Your task to perform on an android device: check google app version Image 0: 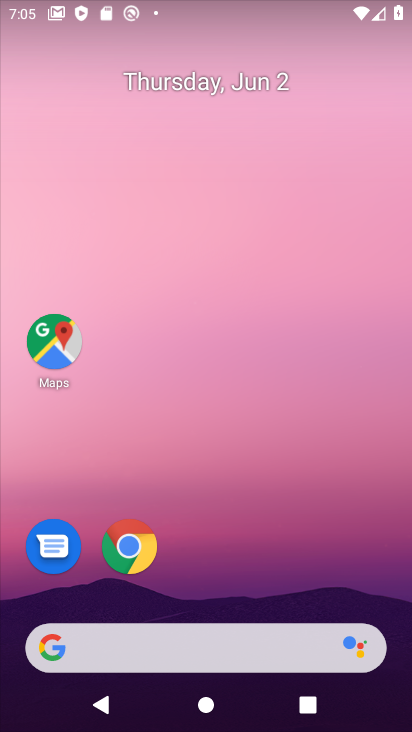
Step 0: click (127, 556)
Your task to perform on an android device: check google app version Image 1: 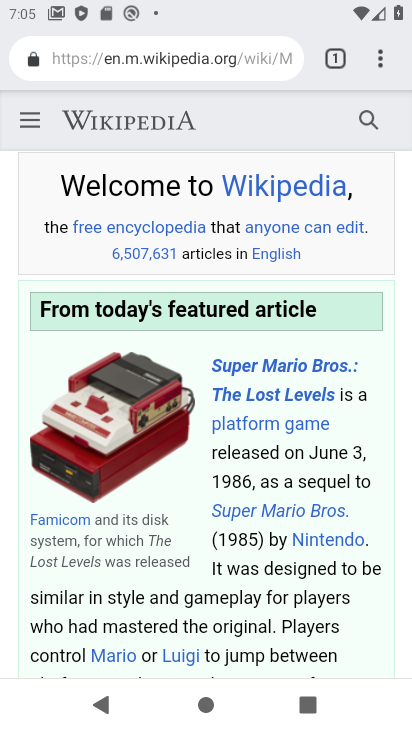
Step 1: click (387, 63)
Your task to perform on an android device: check google app version Image 2: 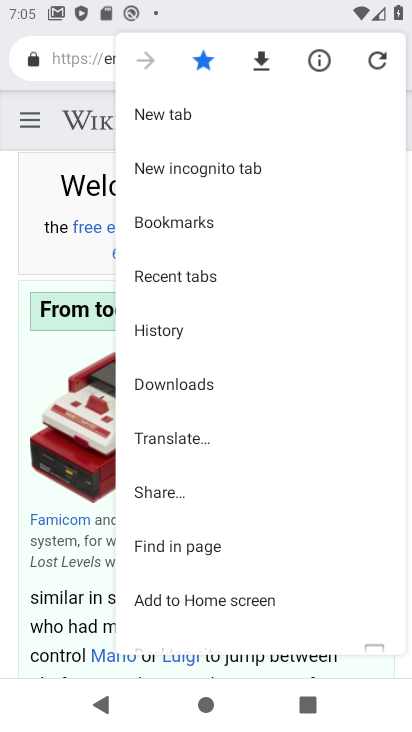
Step 2: drag from (222, 568) to (271, 233)
Your task to perform on an android device: check google app version Image 3: 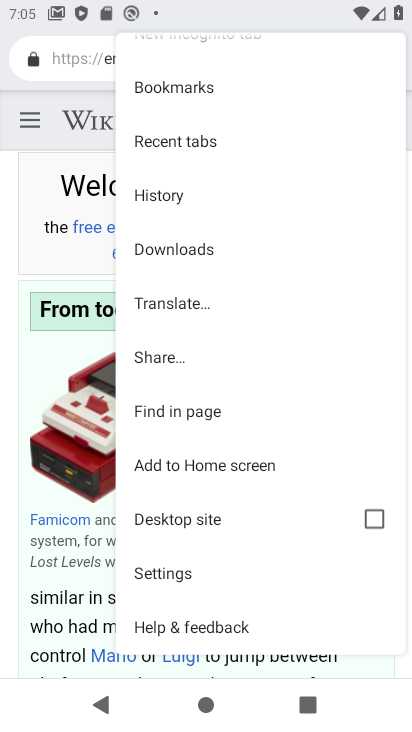
Step 3: click (156, 575)
Your task to perform on an android device: check google app version Image 4: 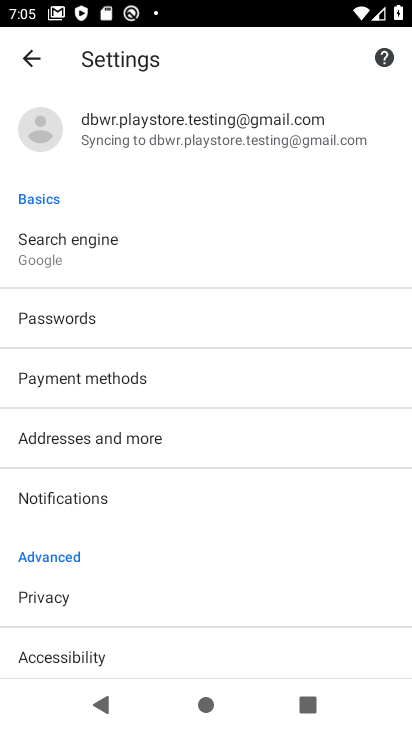
Step 4: drag from (161, 655) to (228, 171)
Your task to perform on an android device: check google app version Image 5: 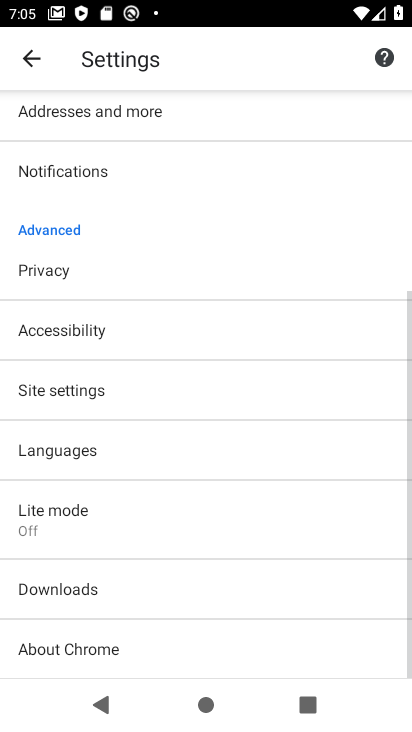
Step 5: click (60, 644)
Your task to perform on an android device: check google app version Image 6: 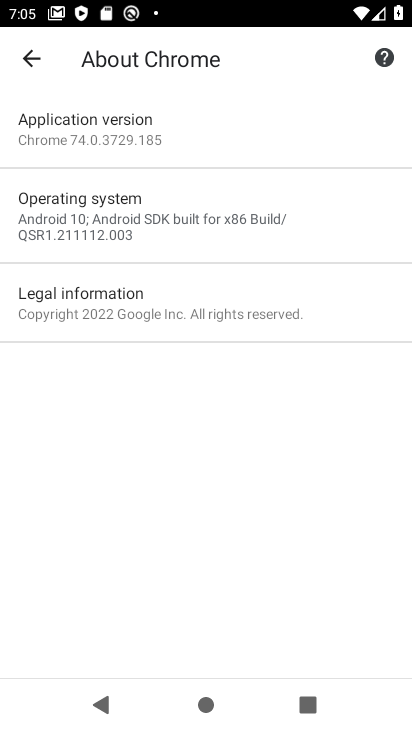
Step 6: click (170, 124)
Your task to perform on an android device: check google app version Image 7: 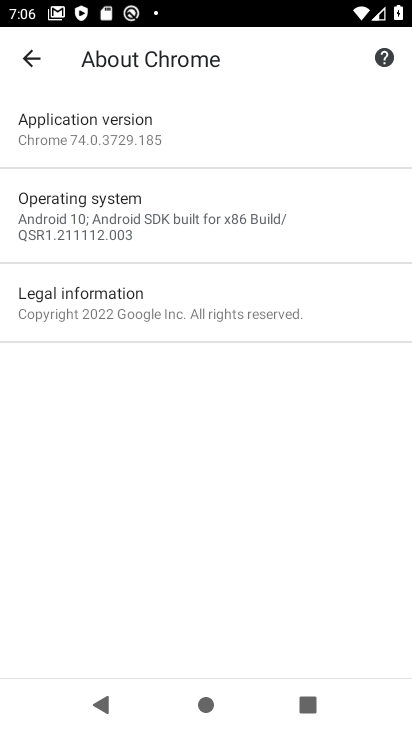
Step 7: task complete